Your task to perform on an android device: Go to eBay Image 0: 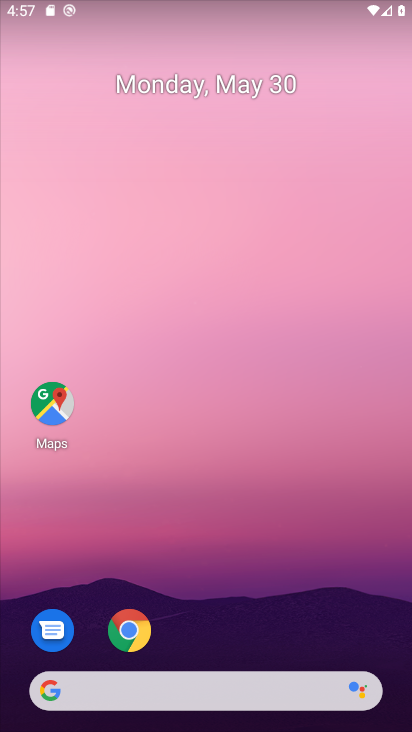
Step 0: drag from (242, 640) to (217, 139)
Your task to perform on an android device: Go to eBay Image 1: 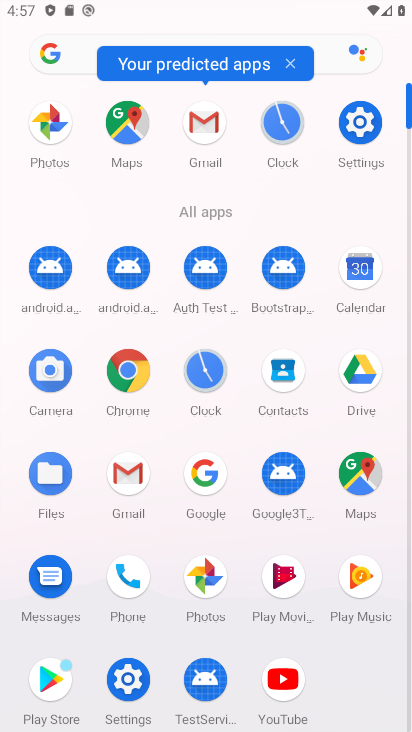
Step 1: click (142, 368)
Your task to perform on an android device: Go to eBay Image 2: 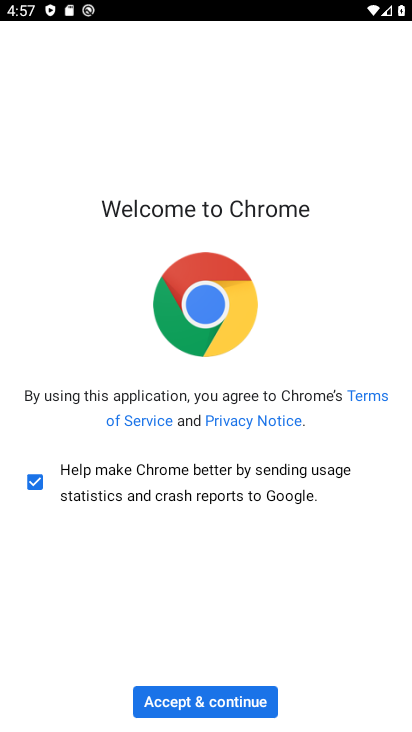
Step 2: click (211, 696)
Your task to perform on an android device: Go to eBay Image 3: 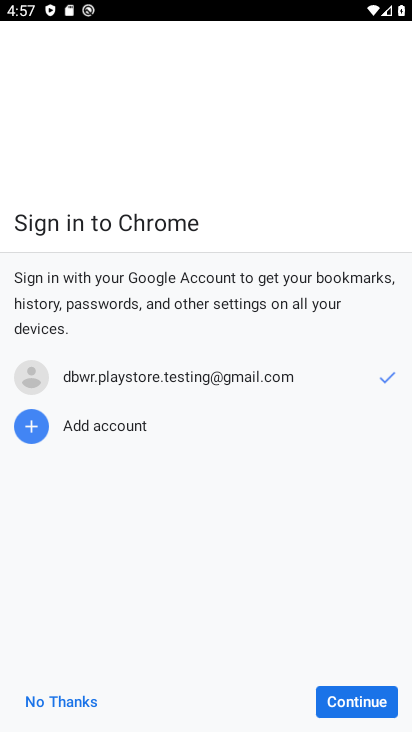
Step 3: click (337, 704)
Your task to perform on an android device: Go to eBay Image 4: 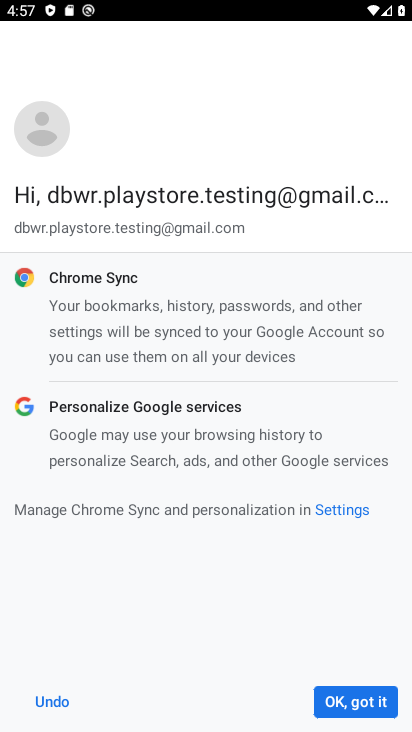
Step 4: click (337, 704)
Your task to perform on an android device: Go to eBay Image 5: 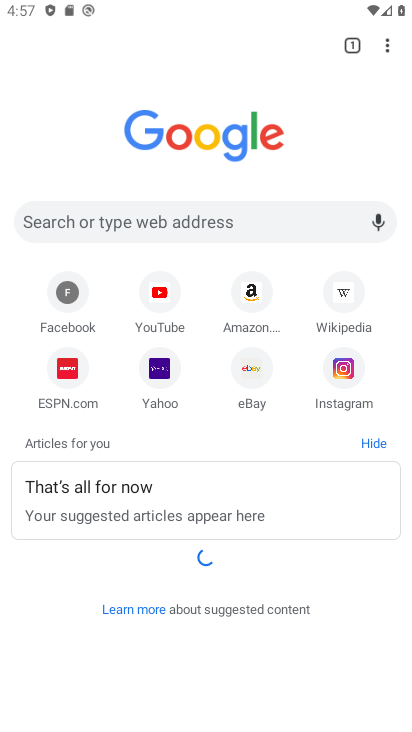
Step 5: click (249, 370)
Your task to perform on an android device: Go to eBay Image 6: 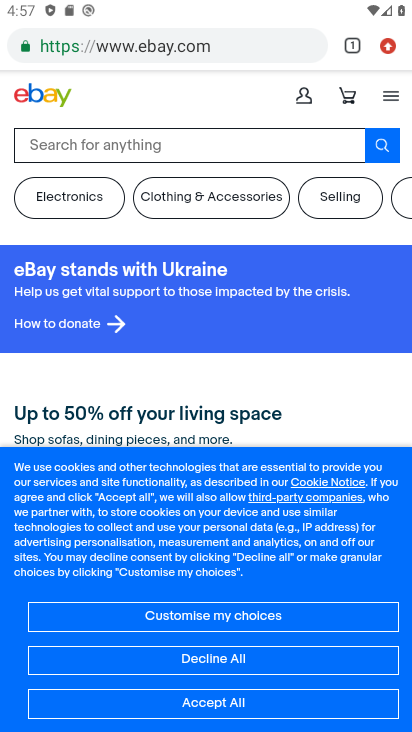
Step 6: task complete